Your task to perform on an android device: toggle show notifications on the lock screen Image 0: 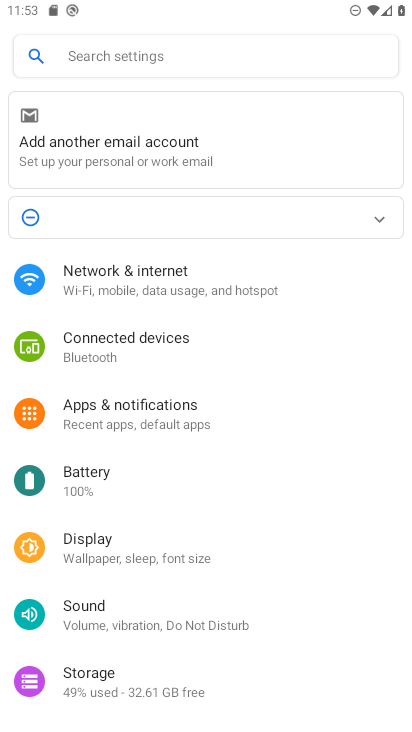
Step 0: click (159, 414)
Your task to perform on an android device: toggle show notifications on the lock screen Image 1: 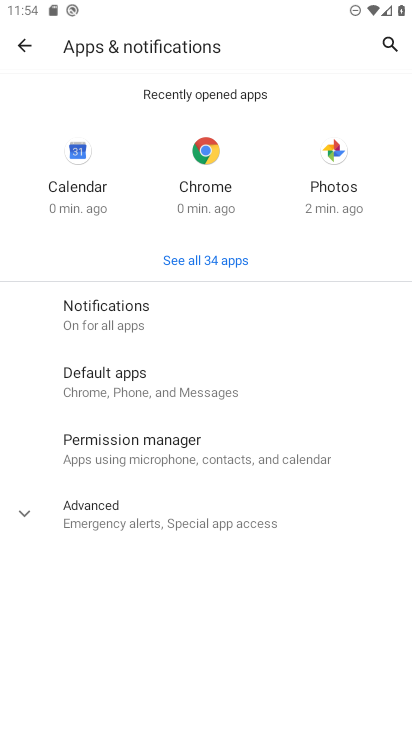
Step 1: click (92, 311)
Your task to perform on an android device: toggle show notifications on the lock screen Image 2: 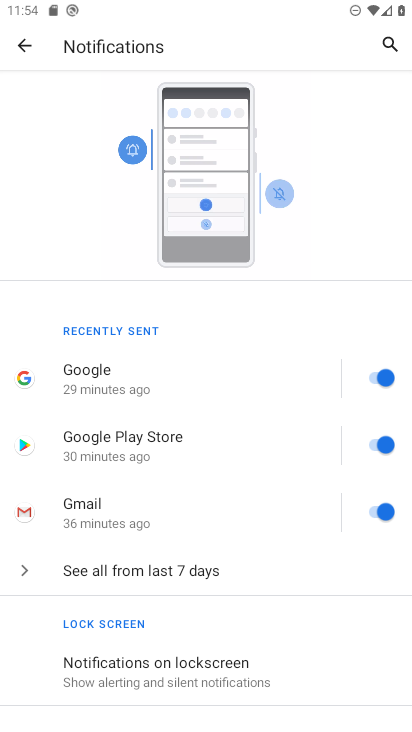
Step 2: click (178, 668)
Your task to perform on an android device: toggle show notifications on the lock screen Image 3: 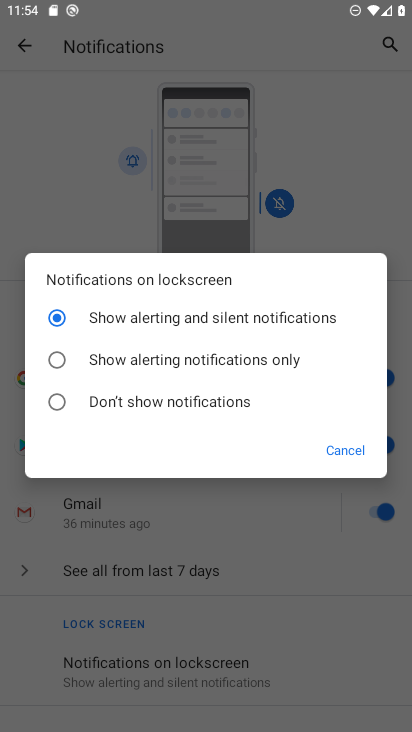
Step 3: task complete